Your task to perform on an android device: Go to notification settings Image 0: 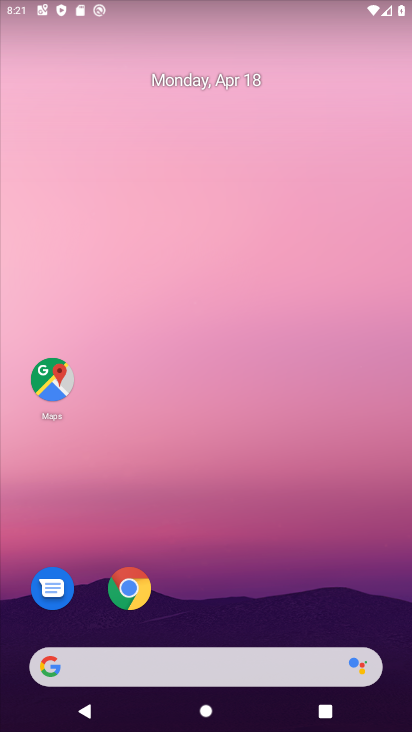
Step 0: drag from (293, 589) to (324, 47)
Your task to perform on an android device: Go to notification settings Image 1: 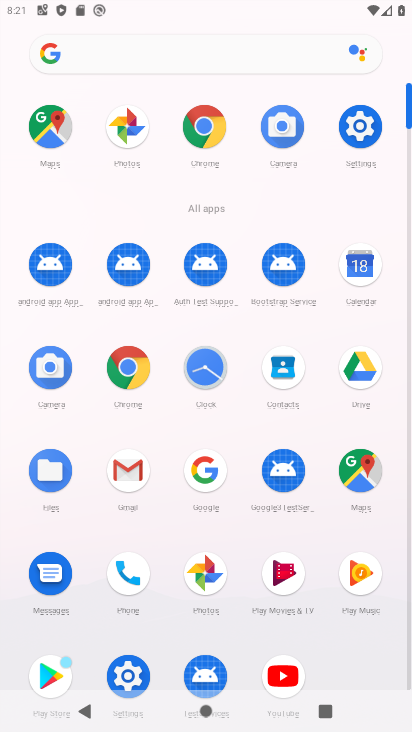
Step 1: click (366, 132)
Your task to perform on an android device: Go to notification settings Image 2: 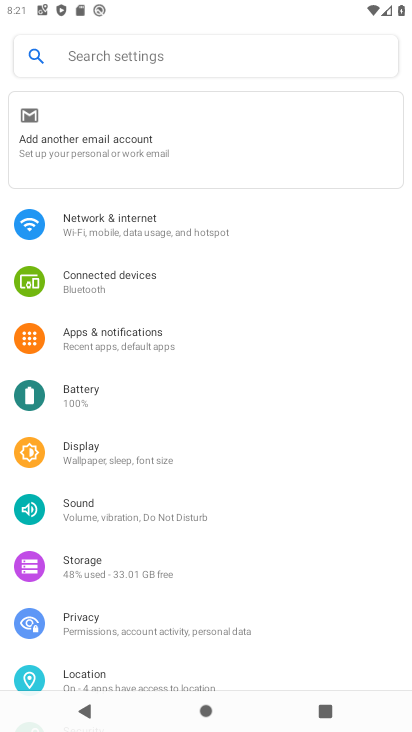
Step 2: drag from (148, 660) to (334, 569)
Your task to perform on an android device: Go to notification settings Image 3: 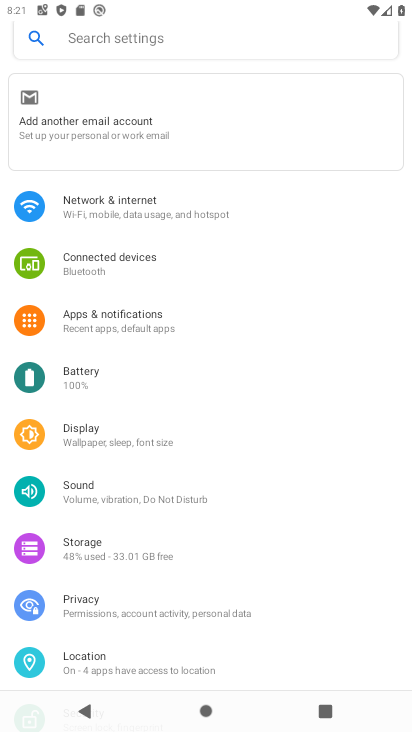
Step 3: click (126, 318)
Your task to perform on an android device: Go to notification settings Image 4: 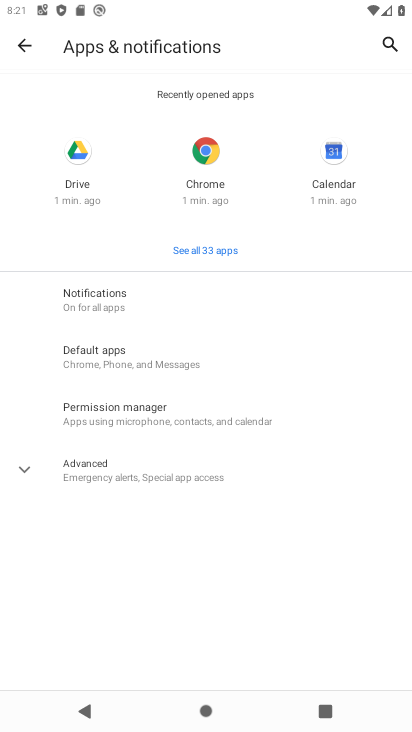
Step 4: click (104, 306)
Your task to perform on an android device: Go to notification settings Image 5: 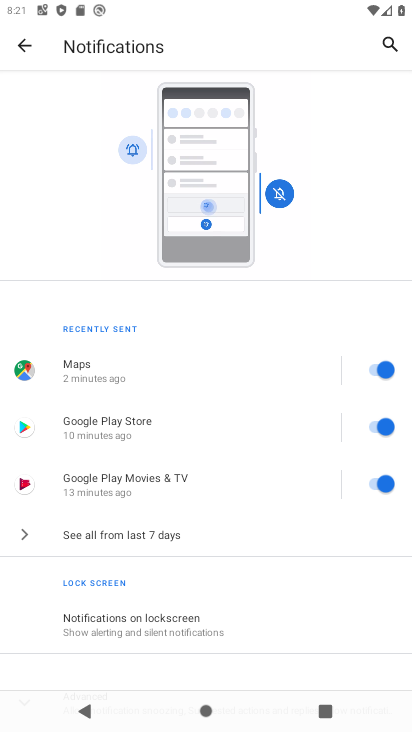
Step 5: drag from (153, 612) to (187, 262)
Your task to perform on an android device: Go to notification settings Image 6: 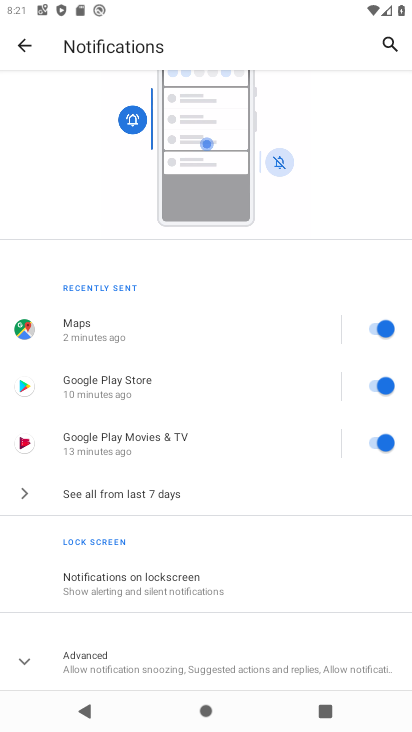
Step 6: click (21, 660)
Your task to perform on an android device: Go to notification settings Image 7: 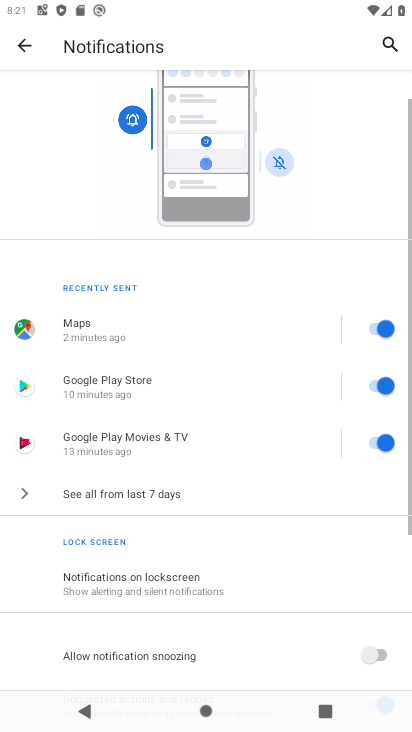
Step 7: task complete